Your task to perform on an android device: turn off priority inbox in the gmail app Image 0: 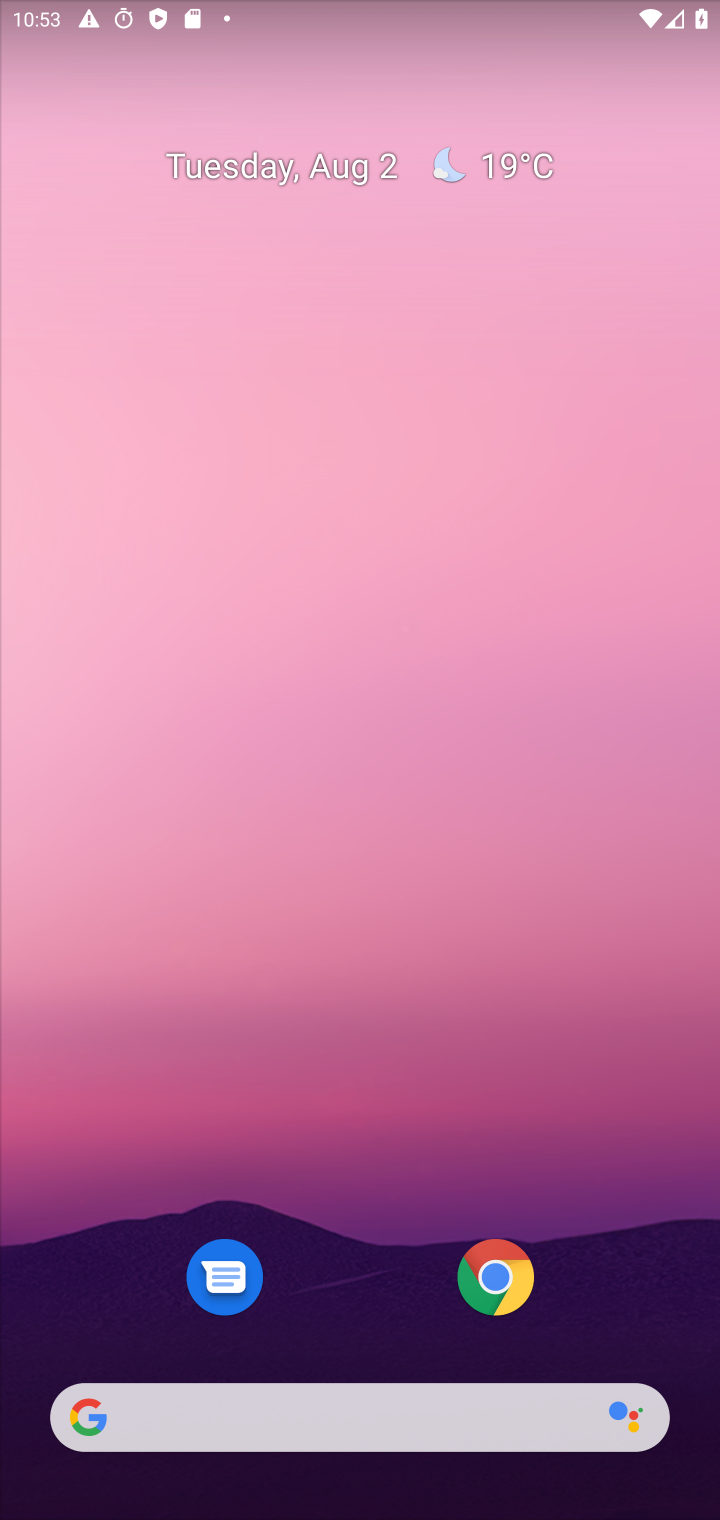
Step 0: press home button
Your task to perform on an android device: turn off priority inbox in the gmail app Image 1: 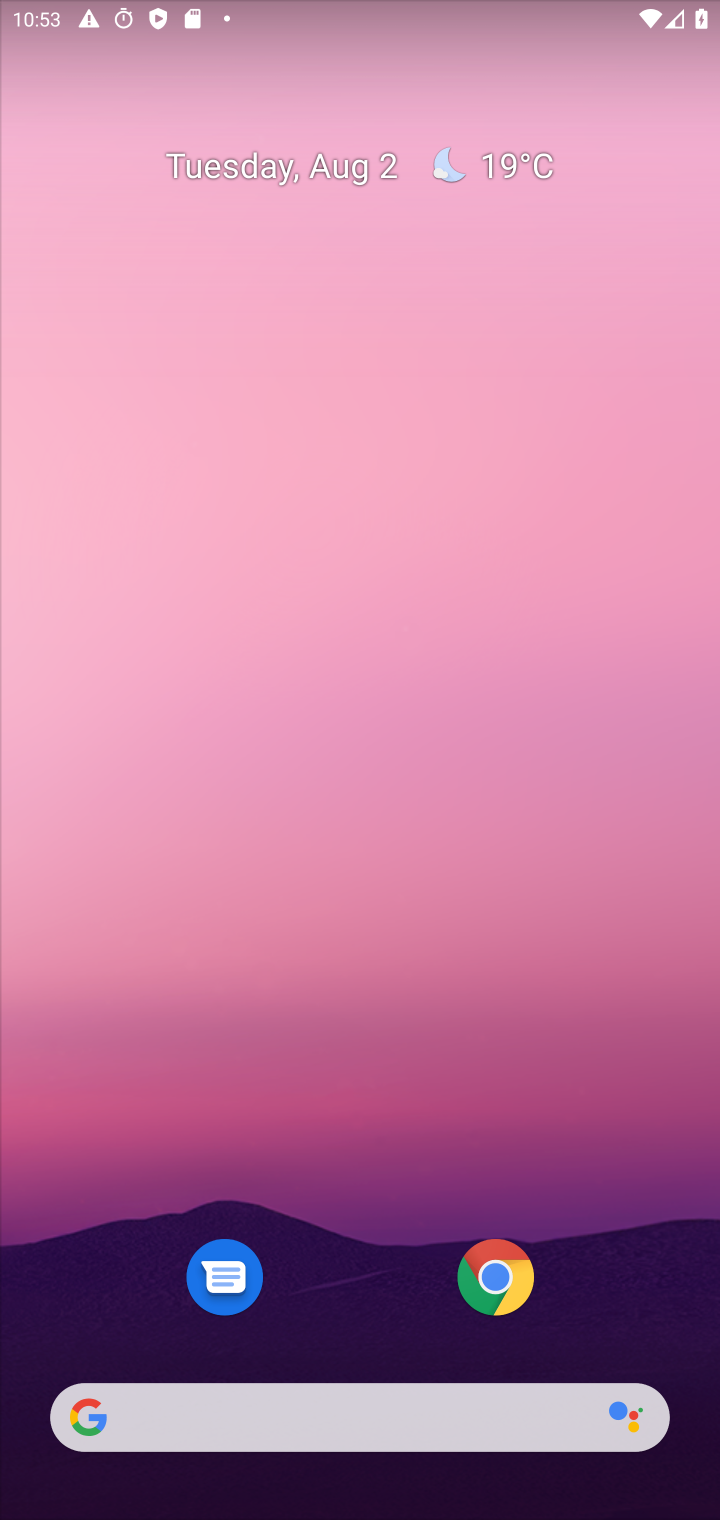
Step 1: press home button
Your task to perform on an android device: turn off priority inbox in the gmail app Image 2: 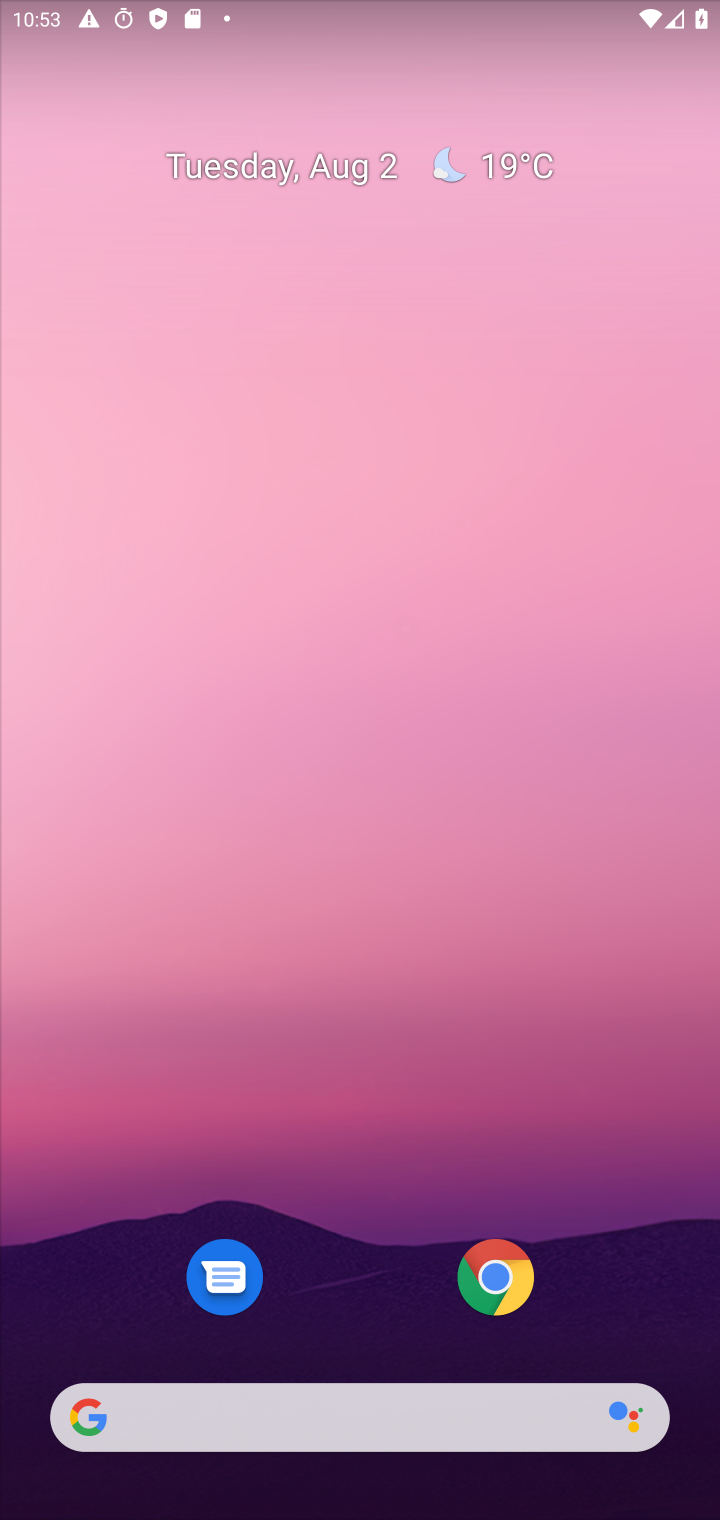
Step 2: click (421, 295)
Your task to perform on an android device: turn off priority inbox in the gmail app Image 3: 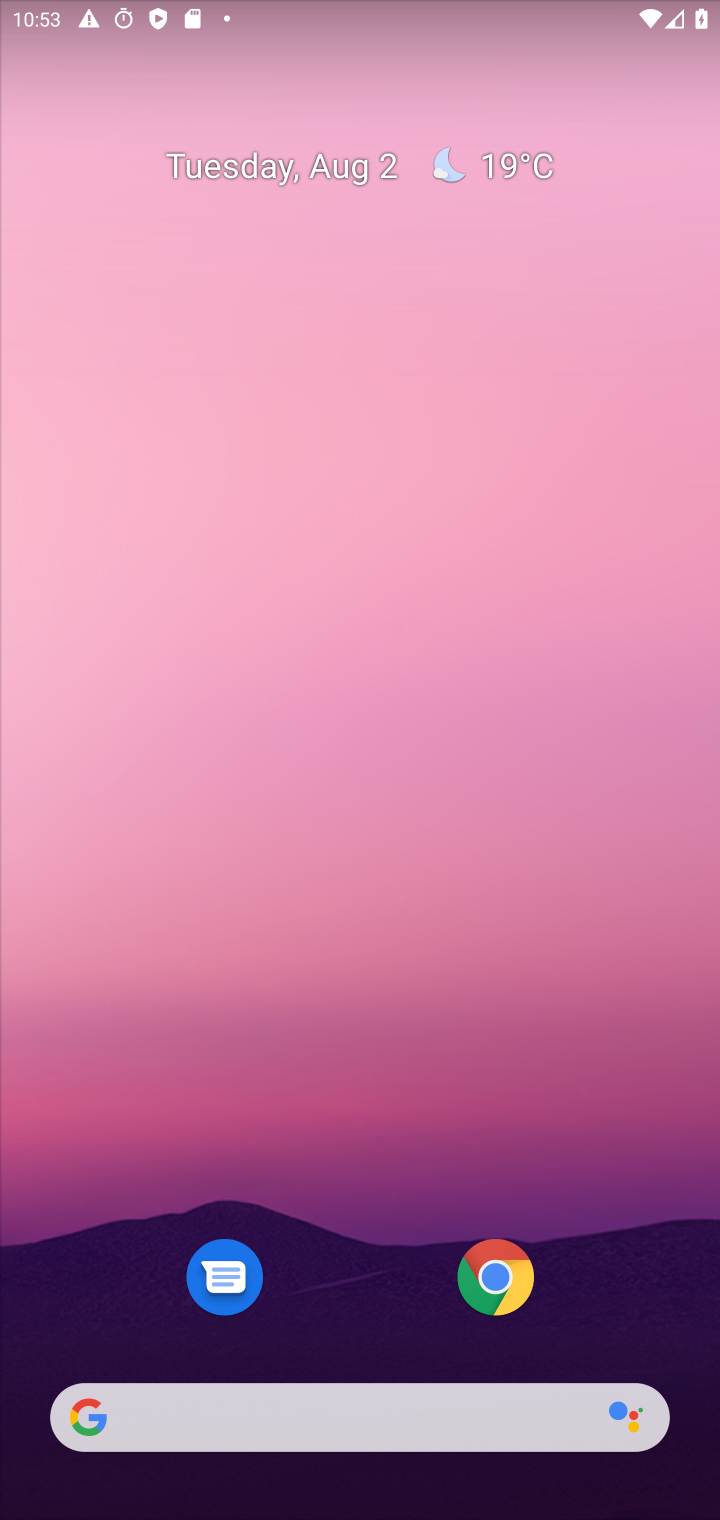
Step 3: drag from (355, 1270) to (383, 448)
Your task to perform on an android device: turn off priority inbox in the gmail app Image 4: 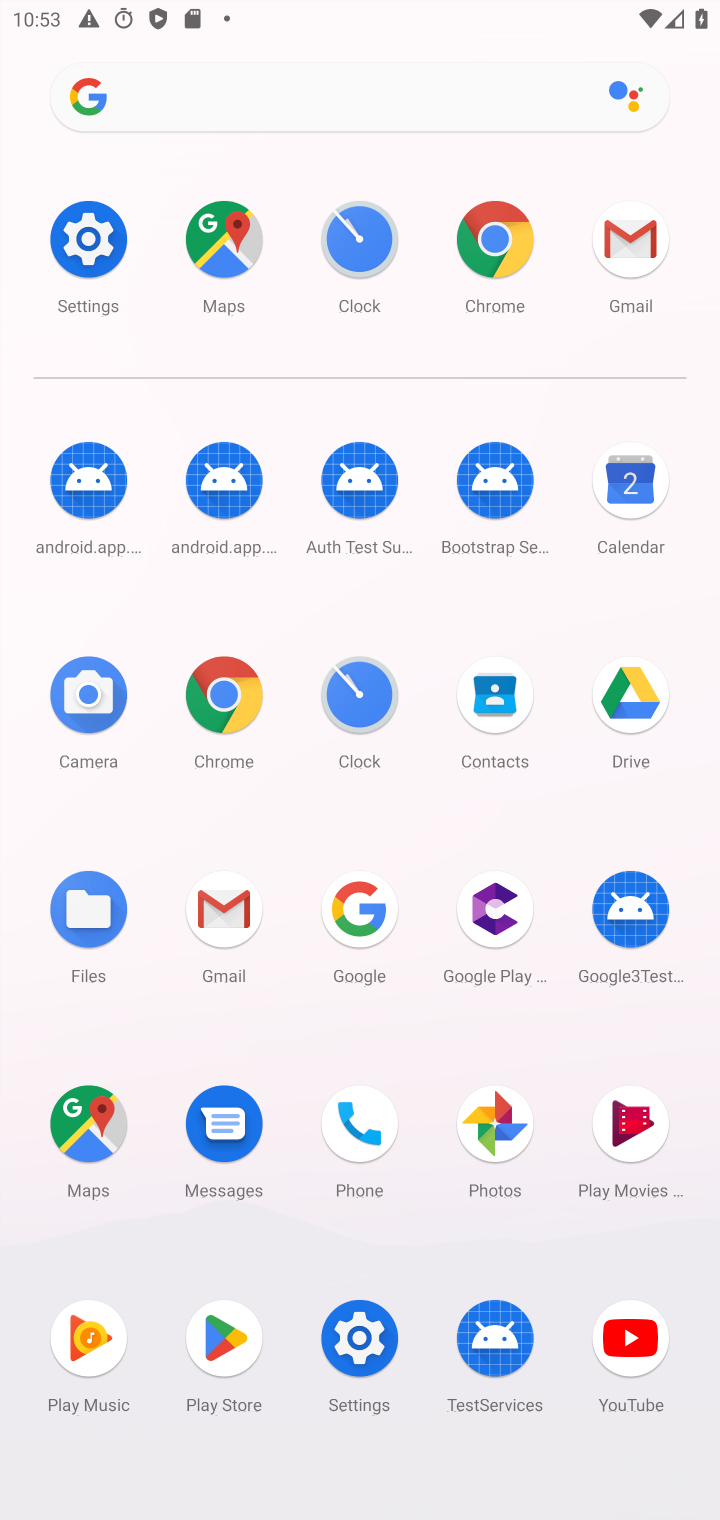
Step 4: click (635, 235)
Your task to perform on an android device: turn off priority inbox in the gmail app Image 5: 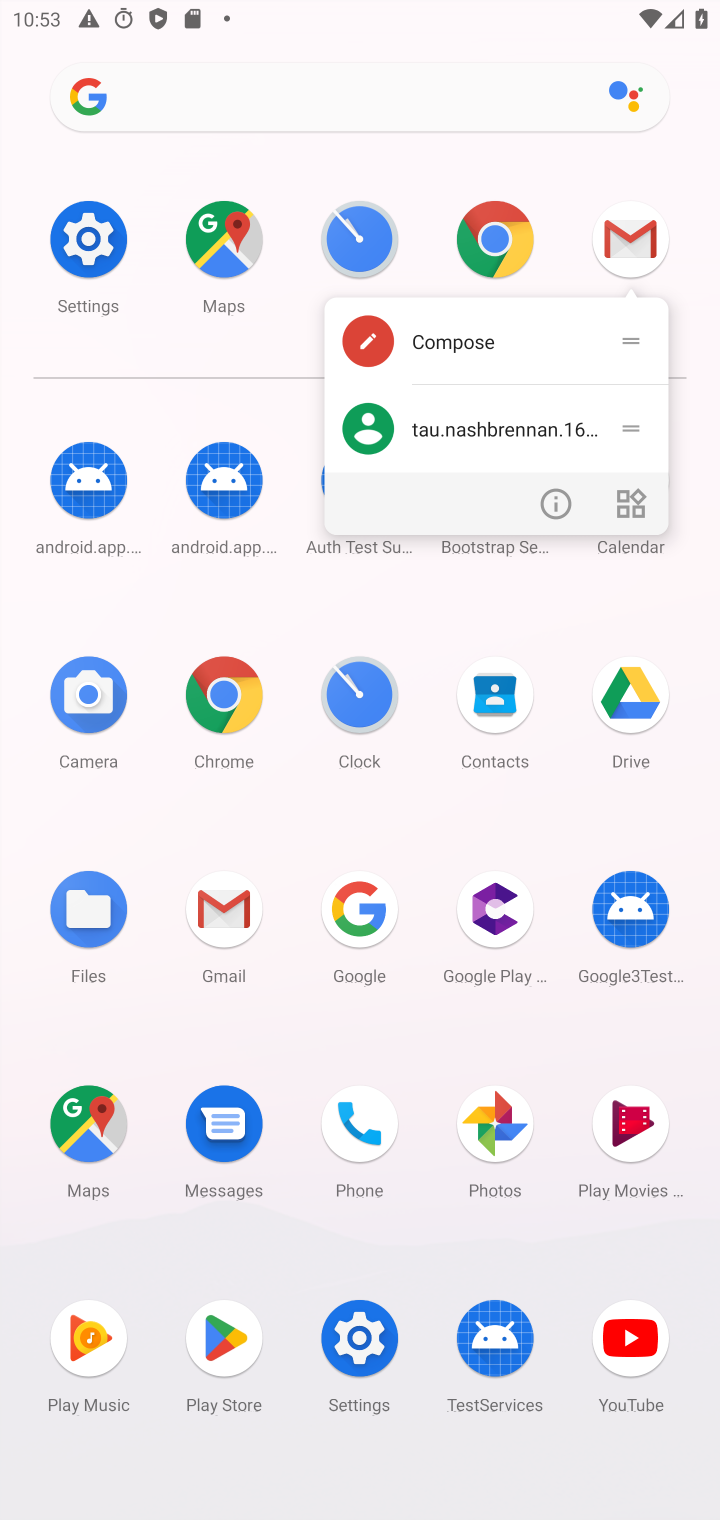
Step 5: click (626, 249)
Your task to perform on an android device: turn off priority inbox in the gmail app Image 6: 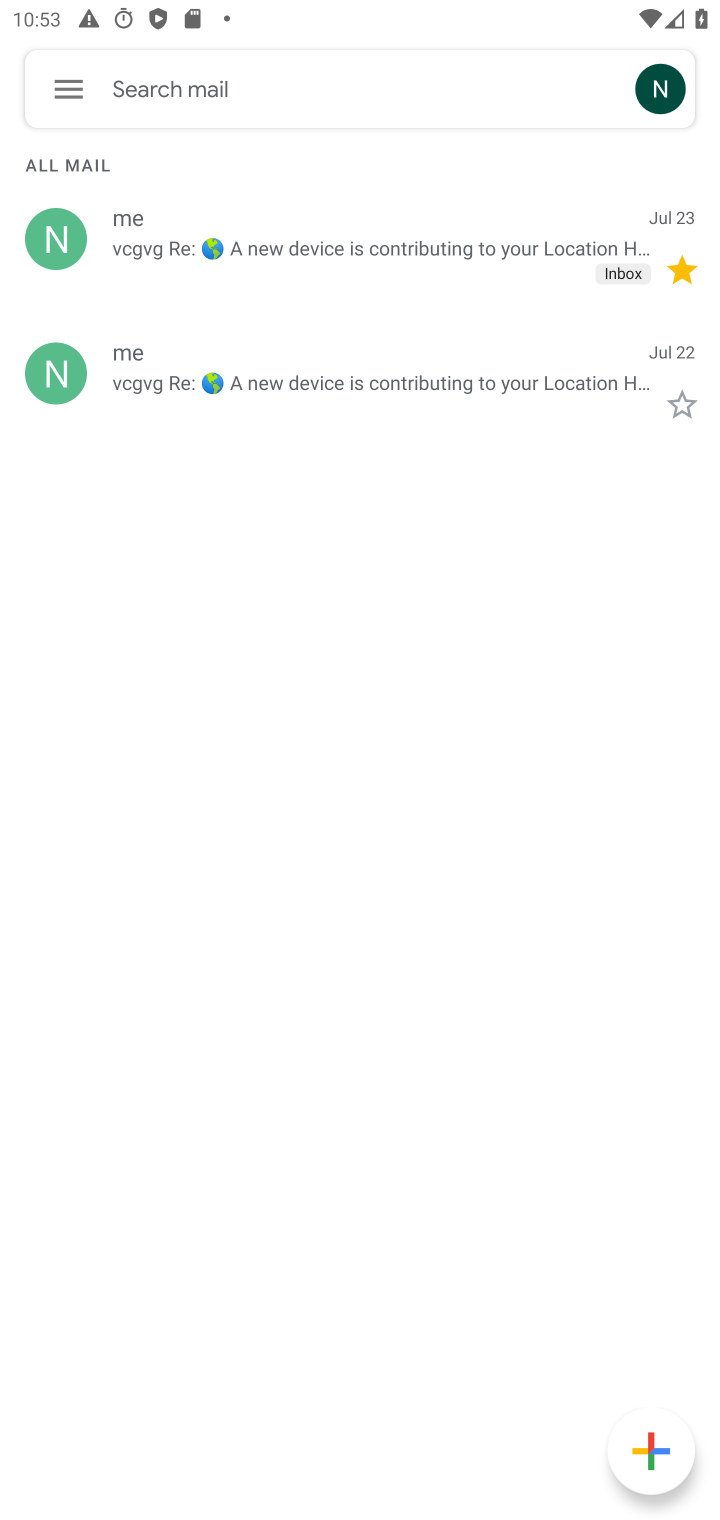
Step 6: click (70, 88)
Your task to perform on an android device: turn off priority inbox in the gmail app Image 7: 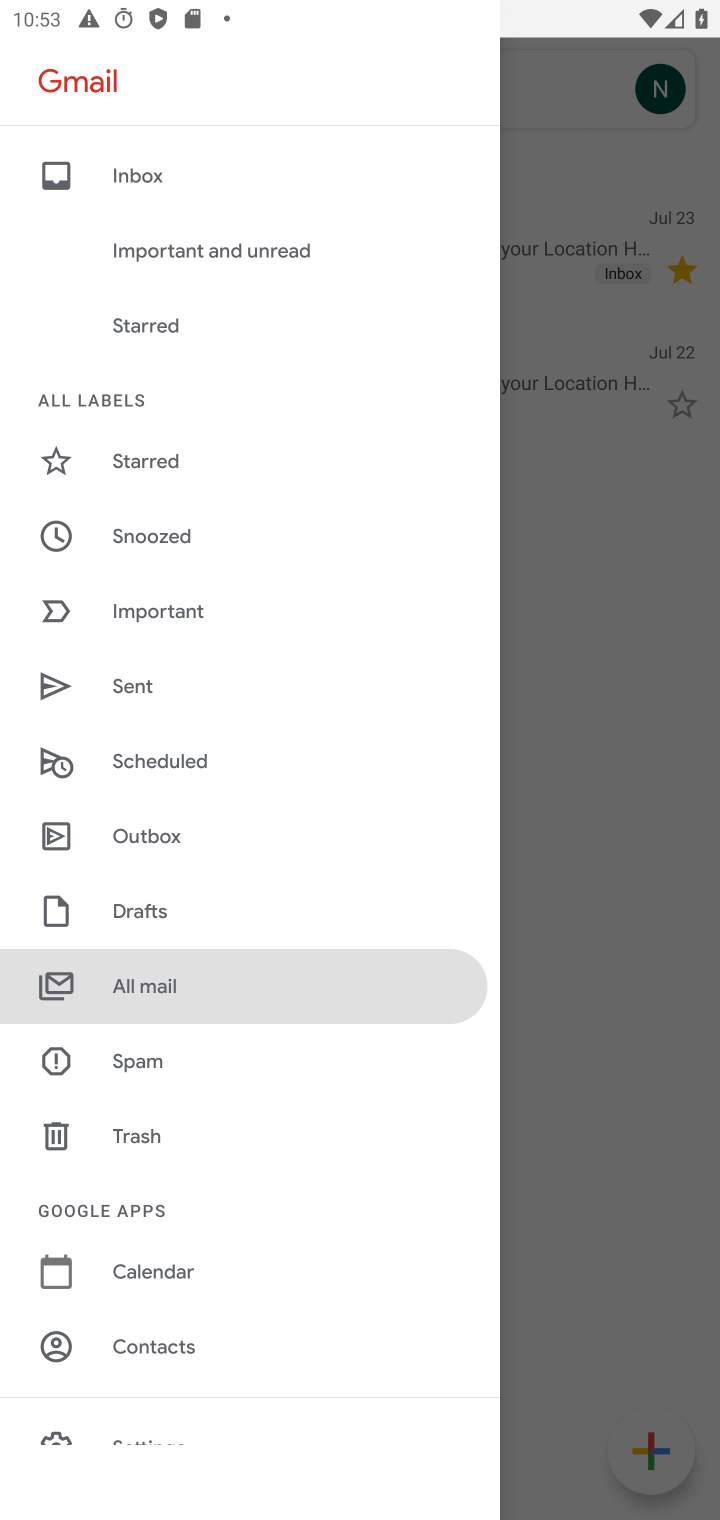
Step 7: drag from (251, 1206) to (246, 771)
Your task to perform on an android device: turn off priority inbox in the gmail app Image 8: 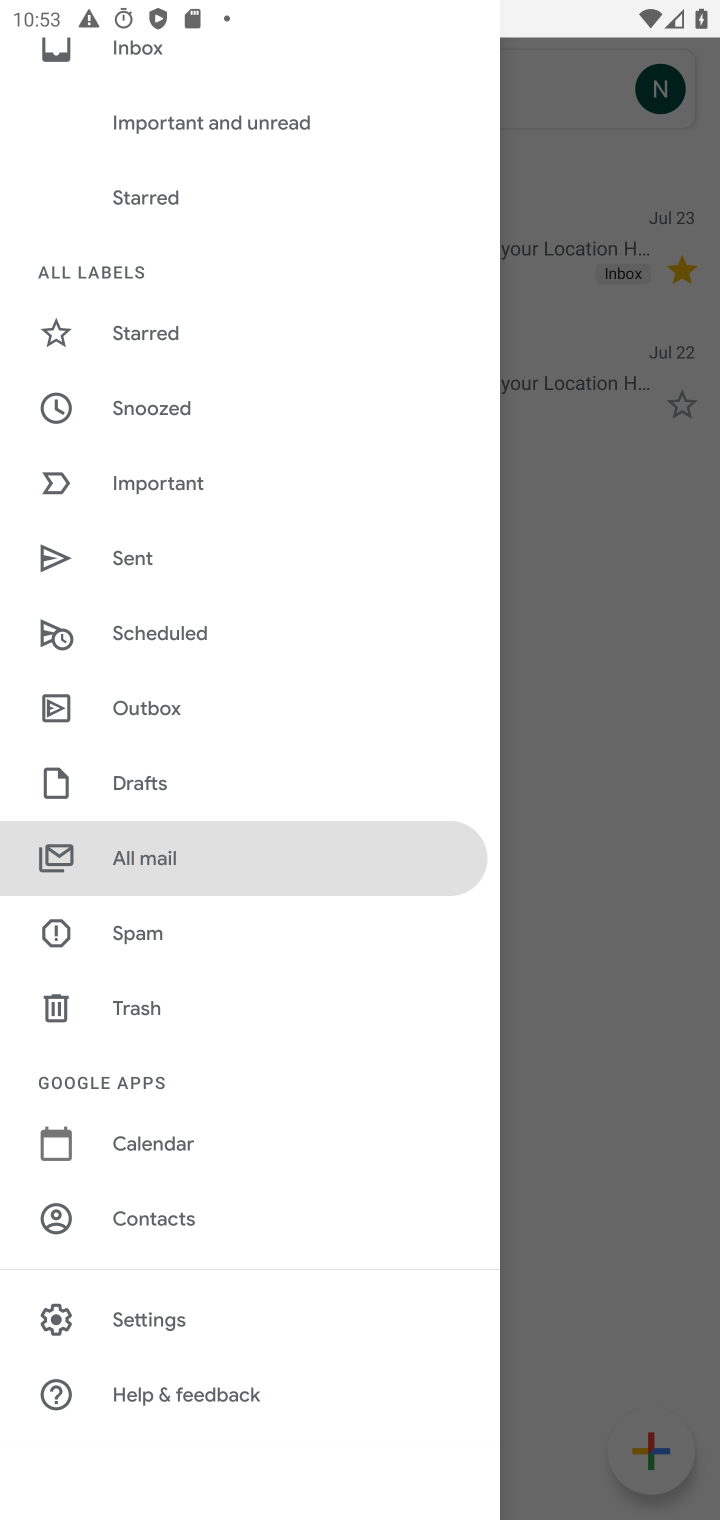
Step 8: click (146, 1325)
Your task to perform on an android device: turn off priority inbox in the gmail app Image 9: 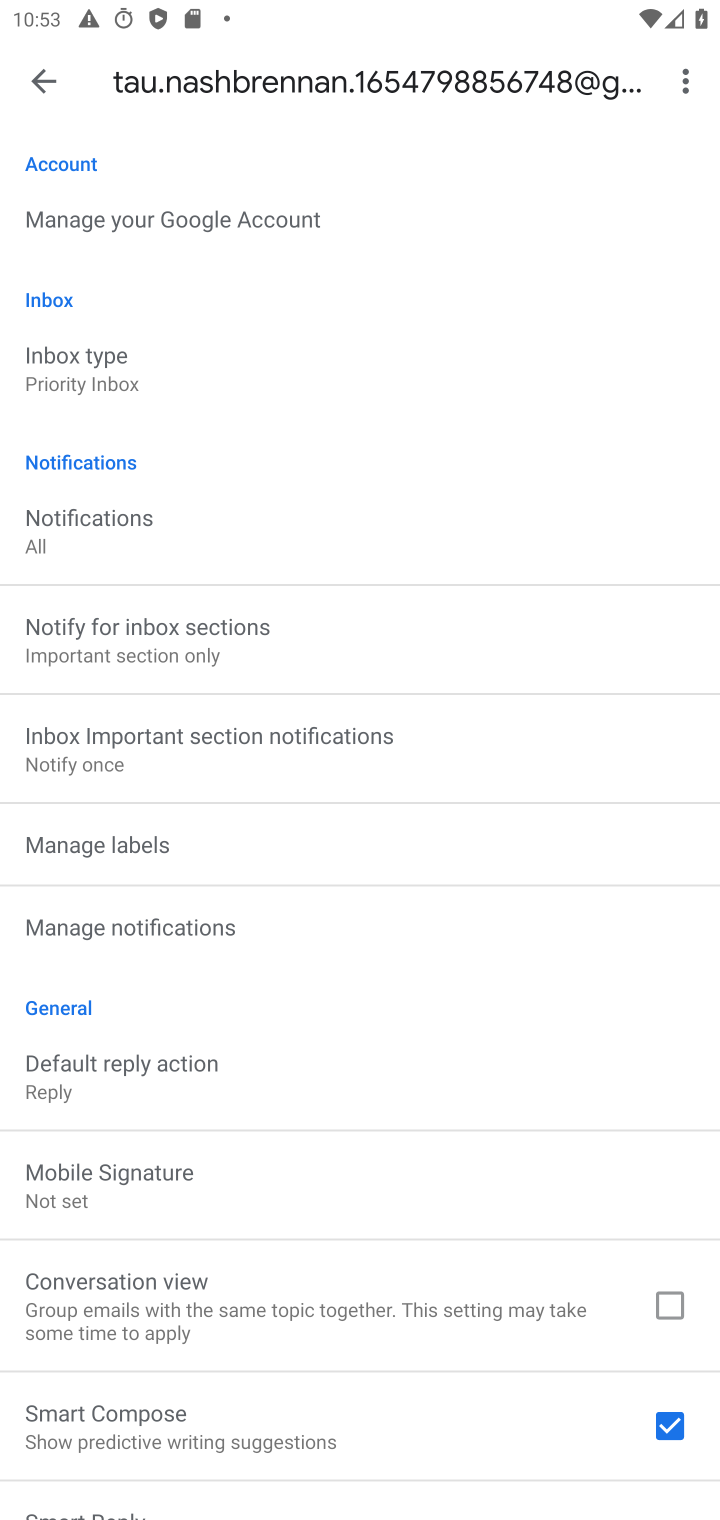
Step 9: click (56, 368)
Your task to perform on an android device: turn off priority inbox in the gmail app Image 10: 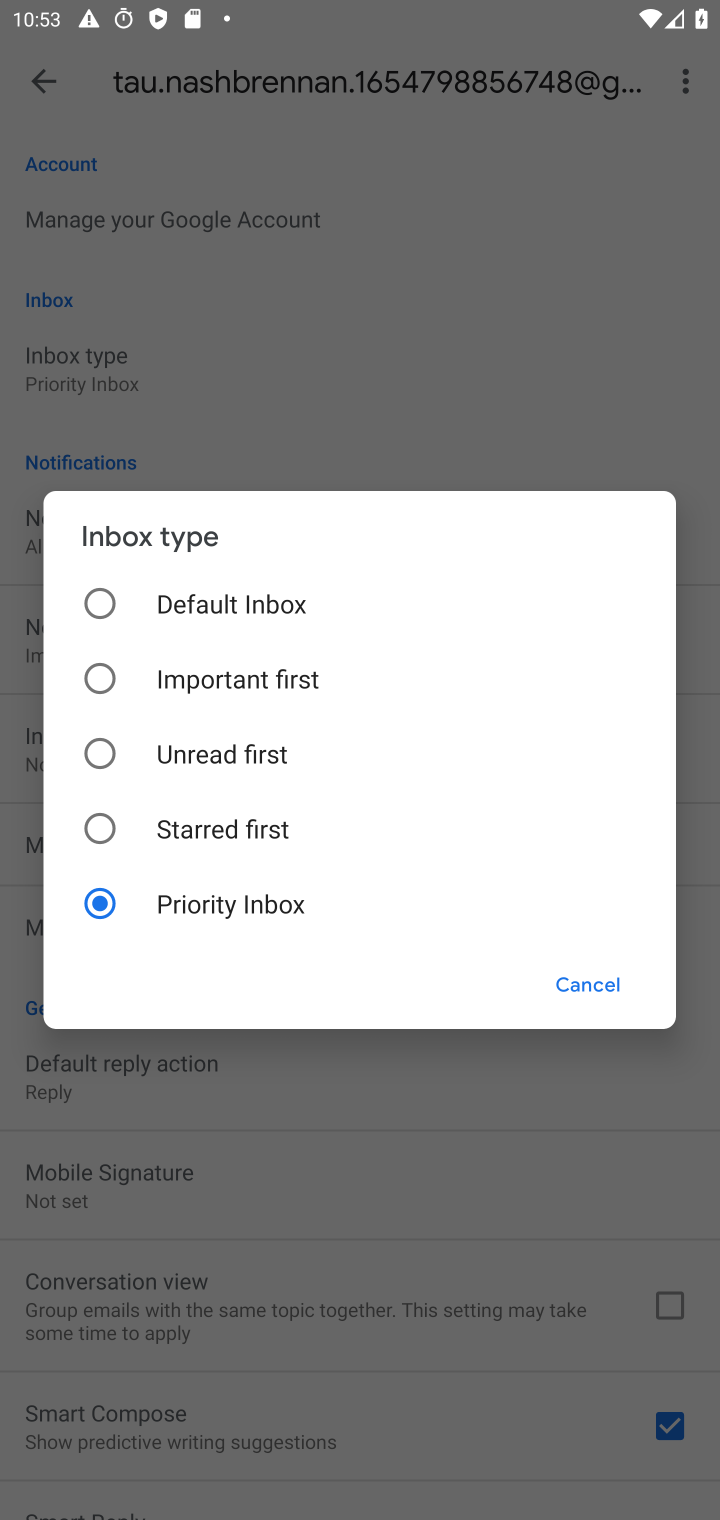
Step 10: click (218, 596)
Your task to perform on an android device: turn off priority inbox in the gmail app Image 11: 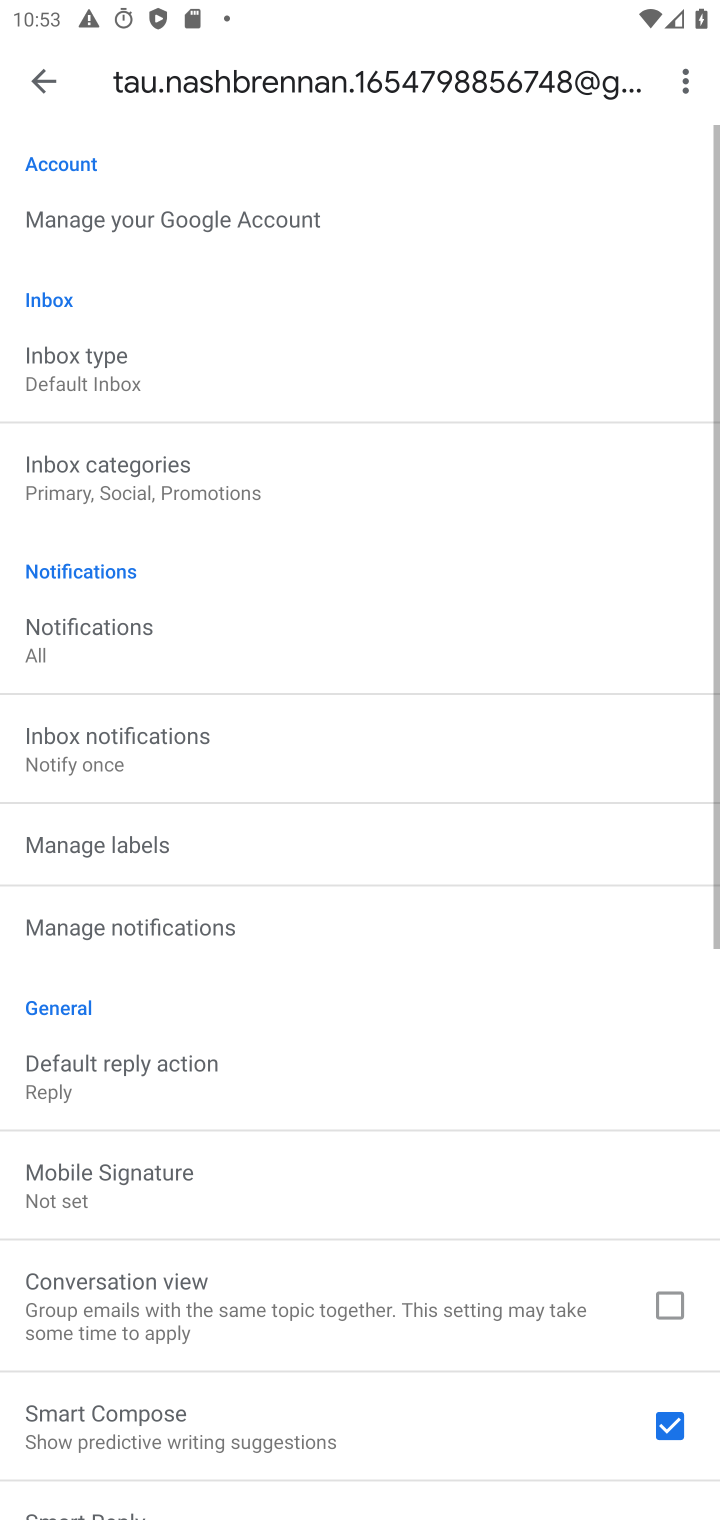
Step 11: task complete